Your task to perform on an android device: Clear all items from cart on walmart.com. Add dell xps to the cart on walmart.com Image 0: 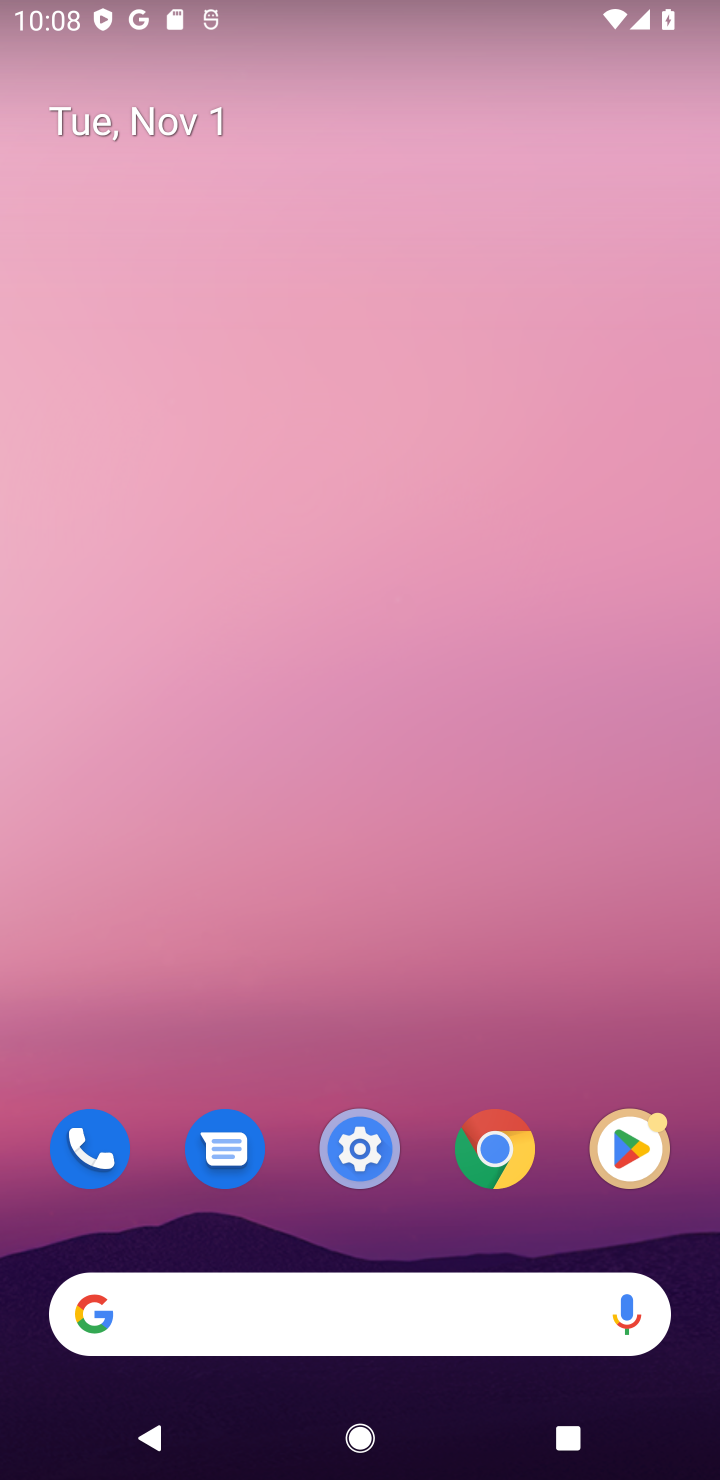
Step 0: press home button
Your task to perform on an android device: Clear all items from cart on walmart.com. Add dell xps to the cart on walmart.com Image 1: 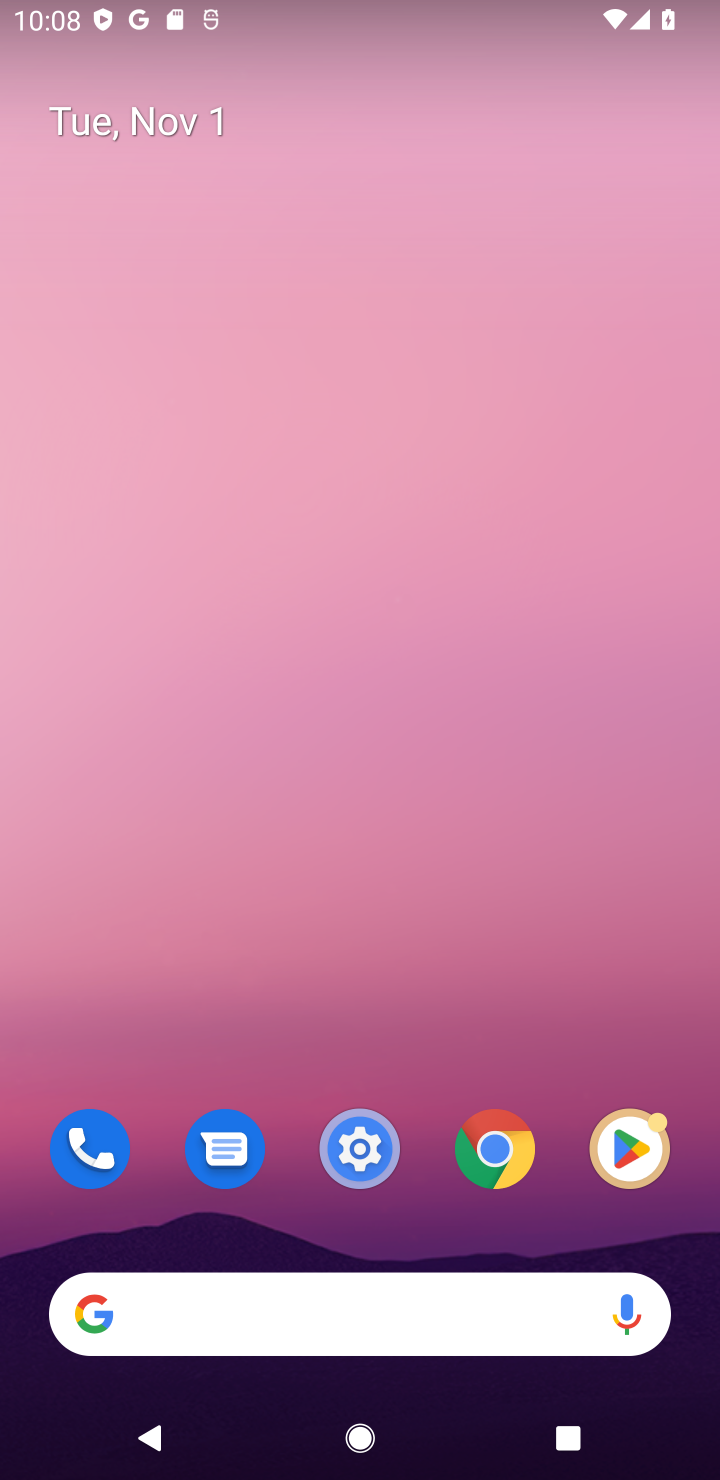
Step 1: click (150, 1318)
Your task to perform on an android device: Clear all items from cart on walmart.com. Add dell xps to the cart on walmart.com Image 2: 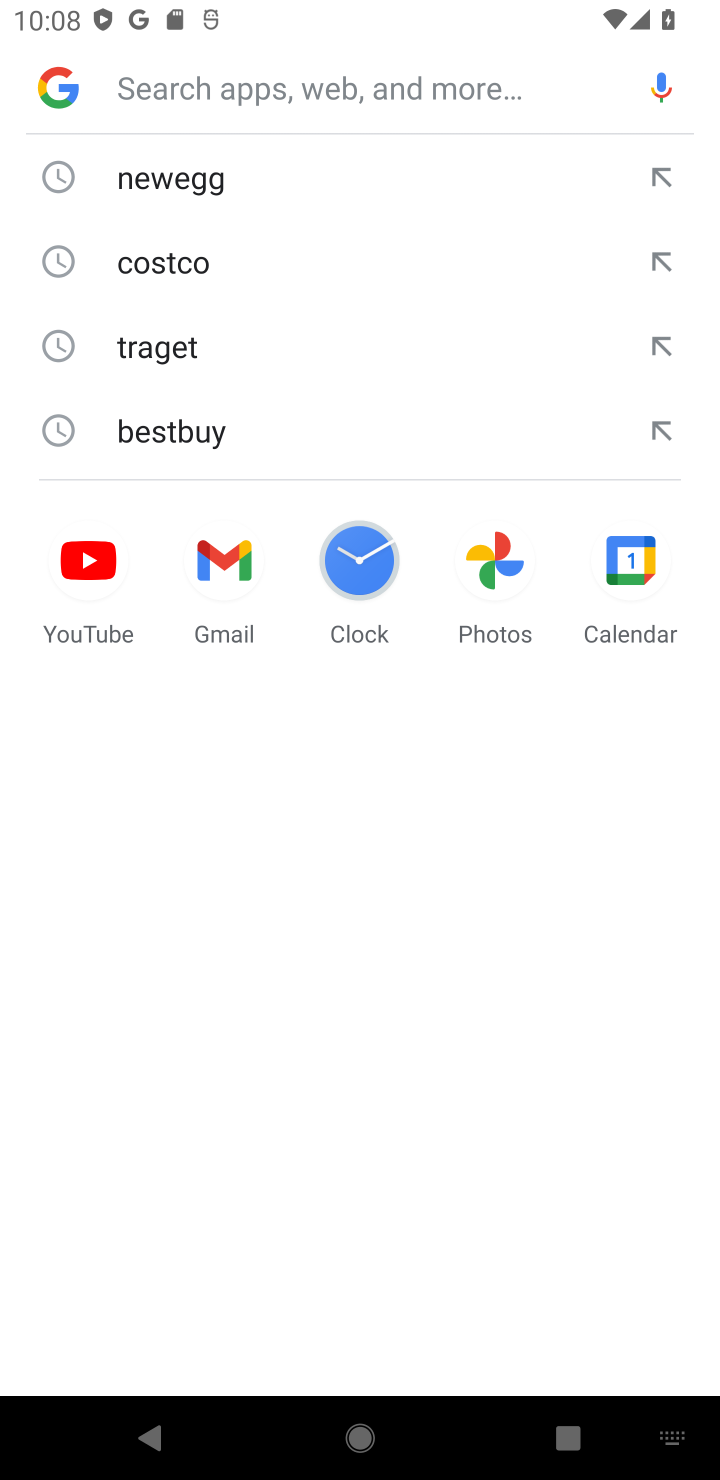
Step 2: type " walmart.com"
Your task to perform on an android device: Clear all items from cart on walmart.com. Add dell xps to the cart on walmart.com Image 3: 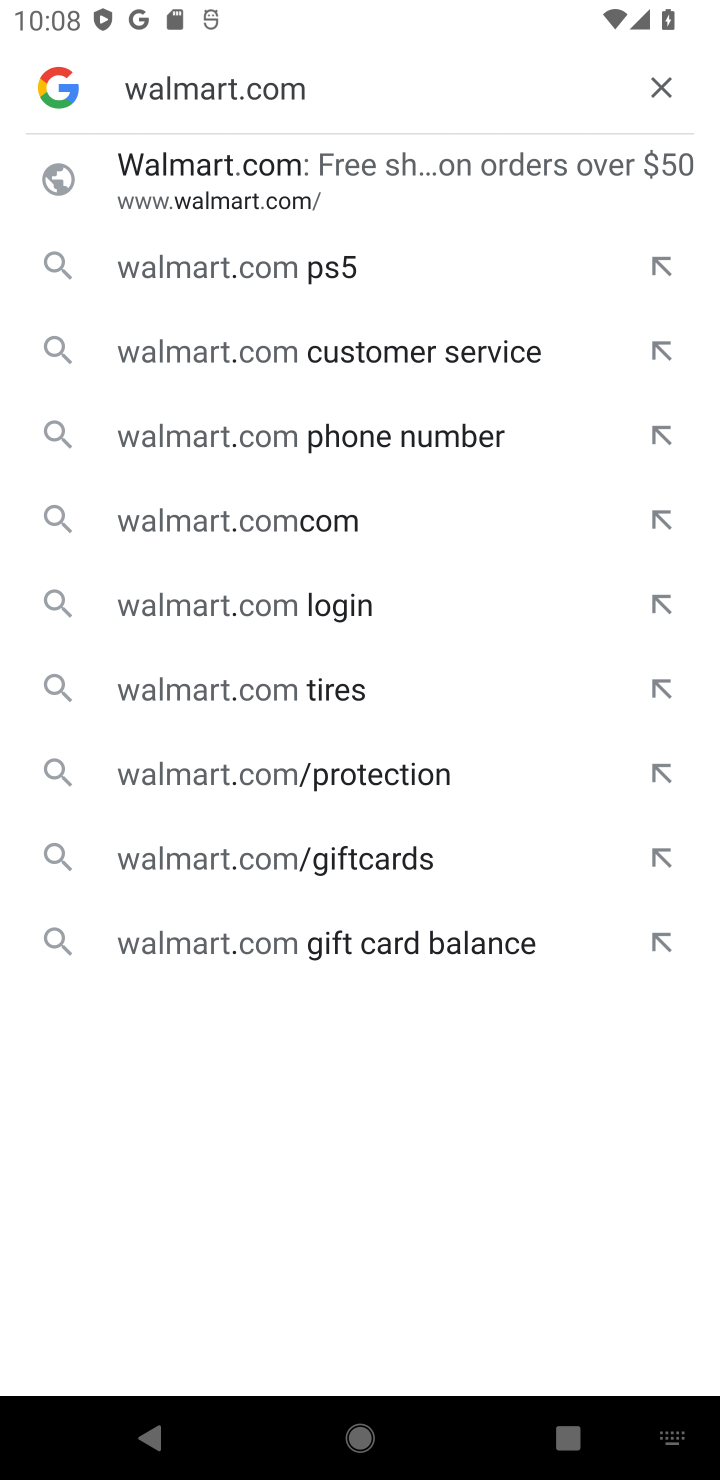
Step 3: press enter
Your task to perform on an android device: Clear all items from cart on walmart.com. Add dell xps to the cart on walmart.com Image 4: 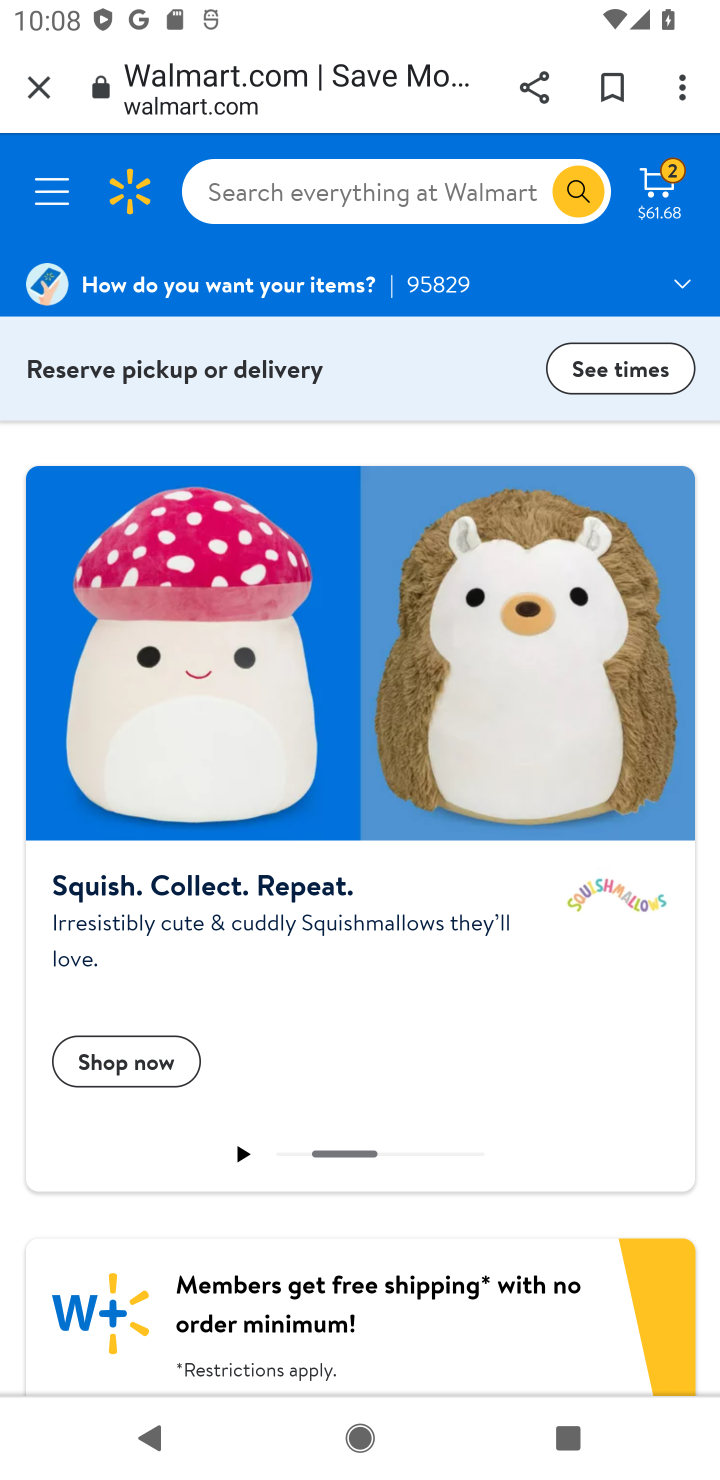
Step 4: click (660, 185)
Your task to perform on an android device: Clear all items from cart on walmart.com. Add dell xps to the cart on walmart.com Image 5: 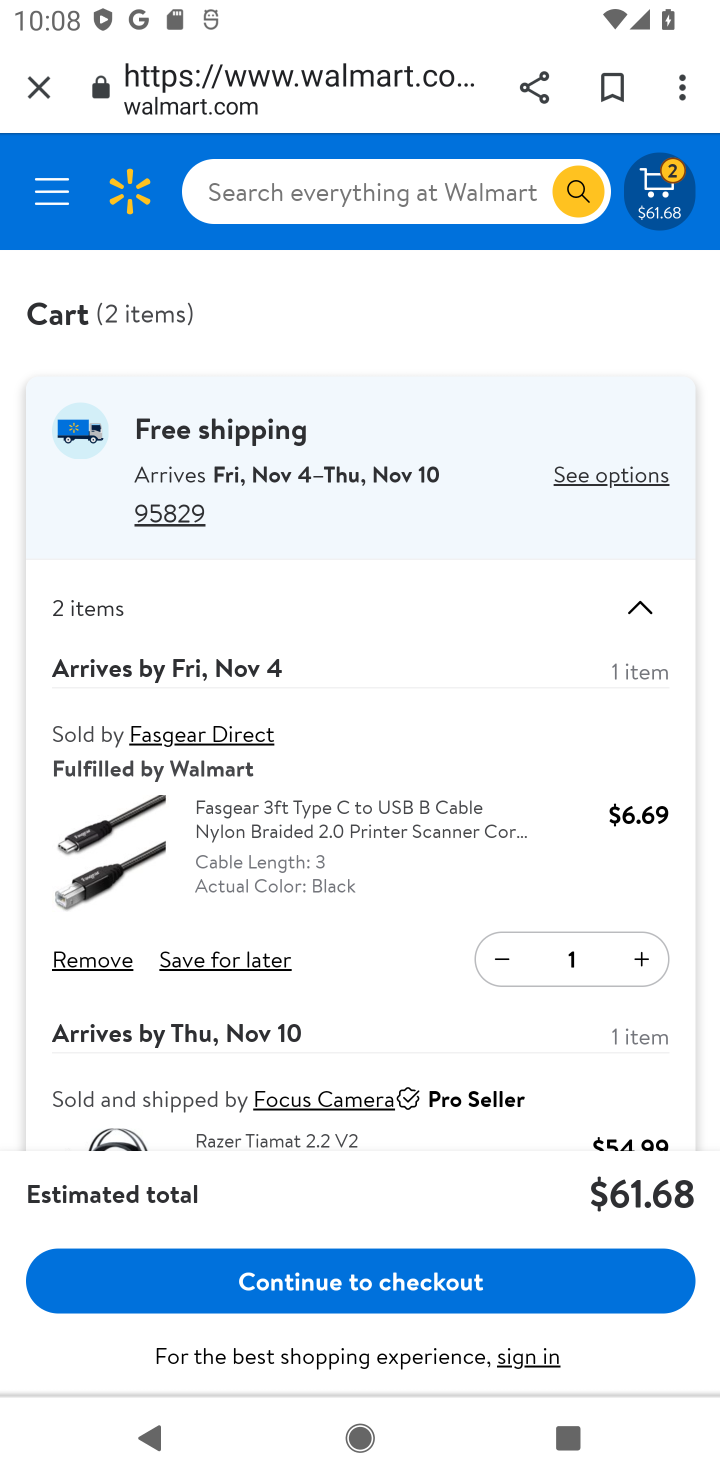
Step 5: click (86, 963)
Your task to perform on an android device: Clear all items from cart on walmart.com. Add dell xps to the cart on walmart.com Image 6: 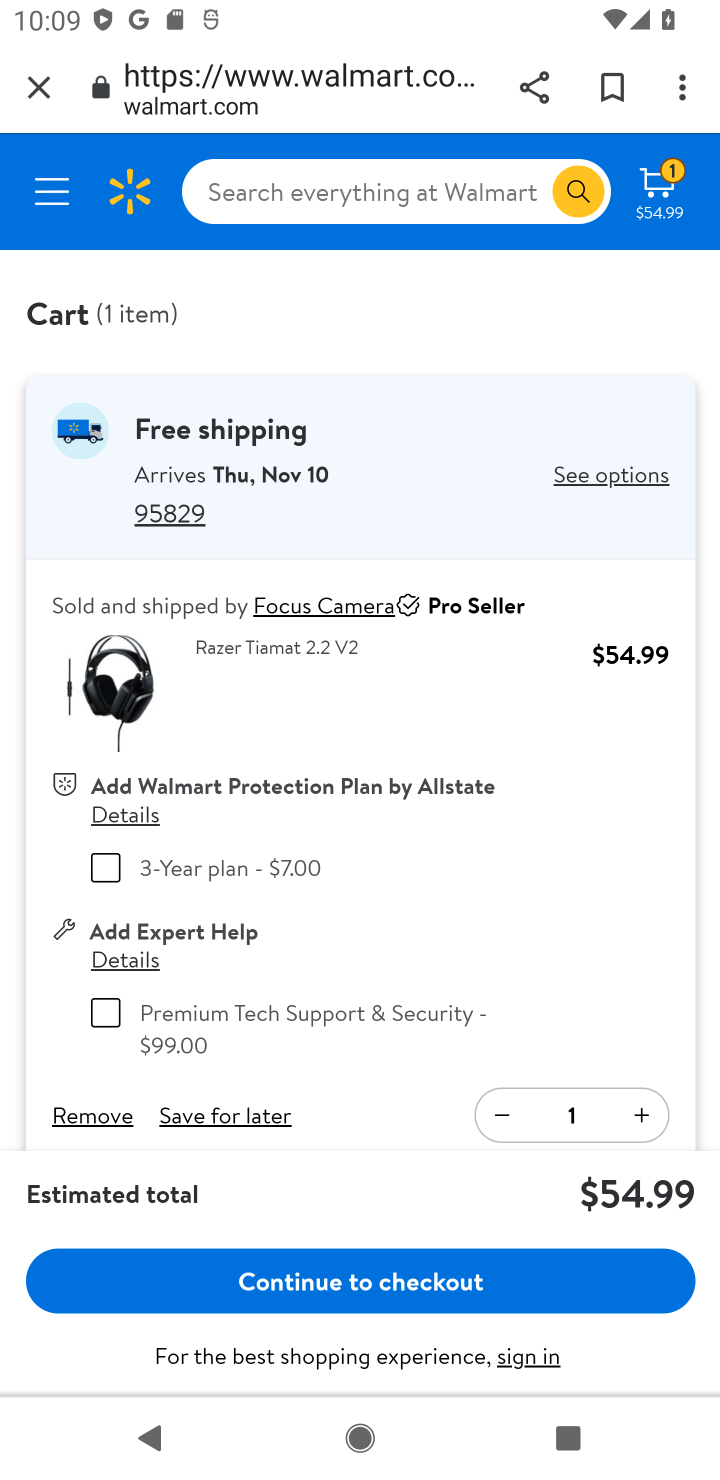
Step 6: click (60, 1117)
Your task to perform on an android device: Clear all items from cart on walmart.com. Add dell xps to the cart on walmart.com Image 7: 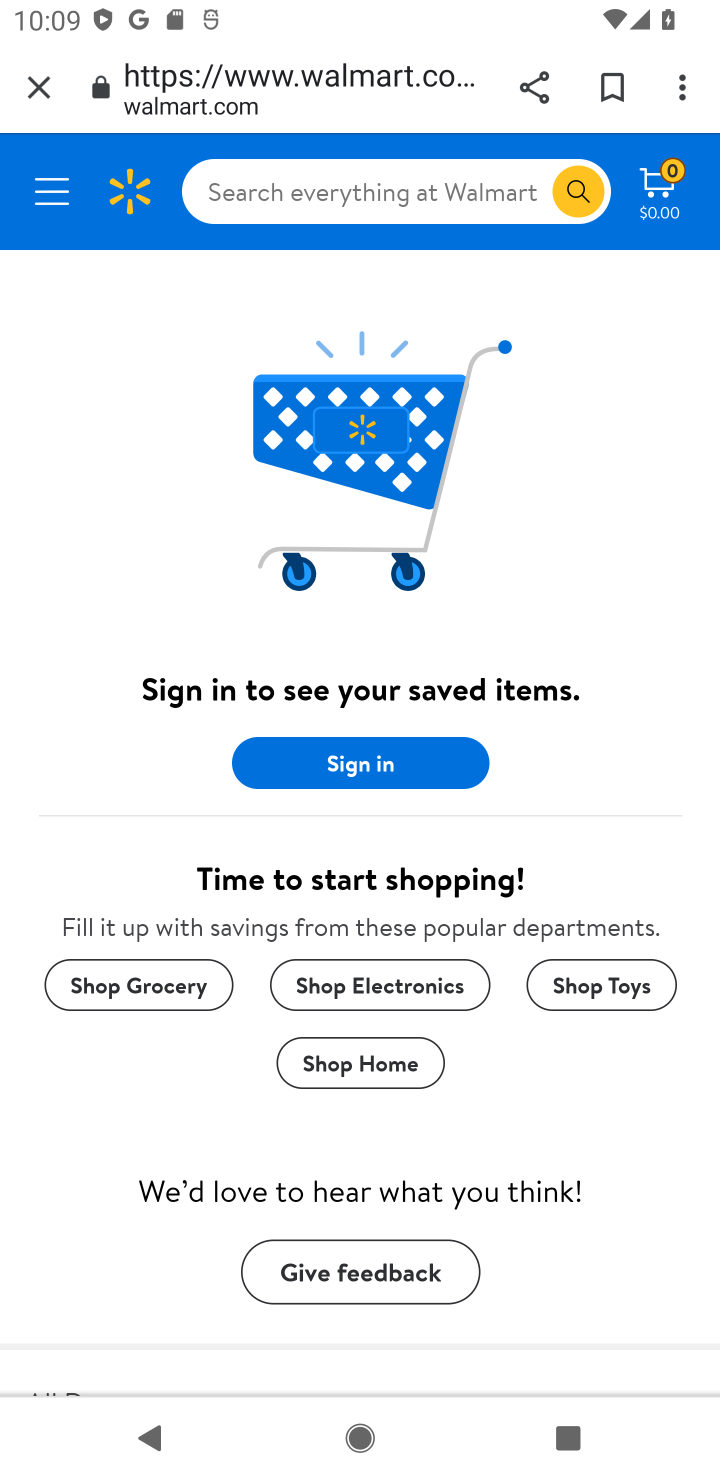
Step 7: click (258, 187)
Your task to perform on an android device: Clear all items from cart on walmart.com. Add dell xps to the cart on walmart.com Image 8: 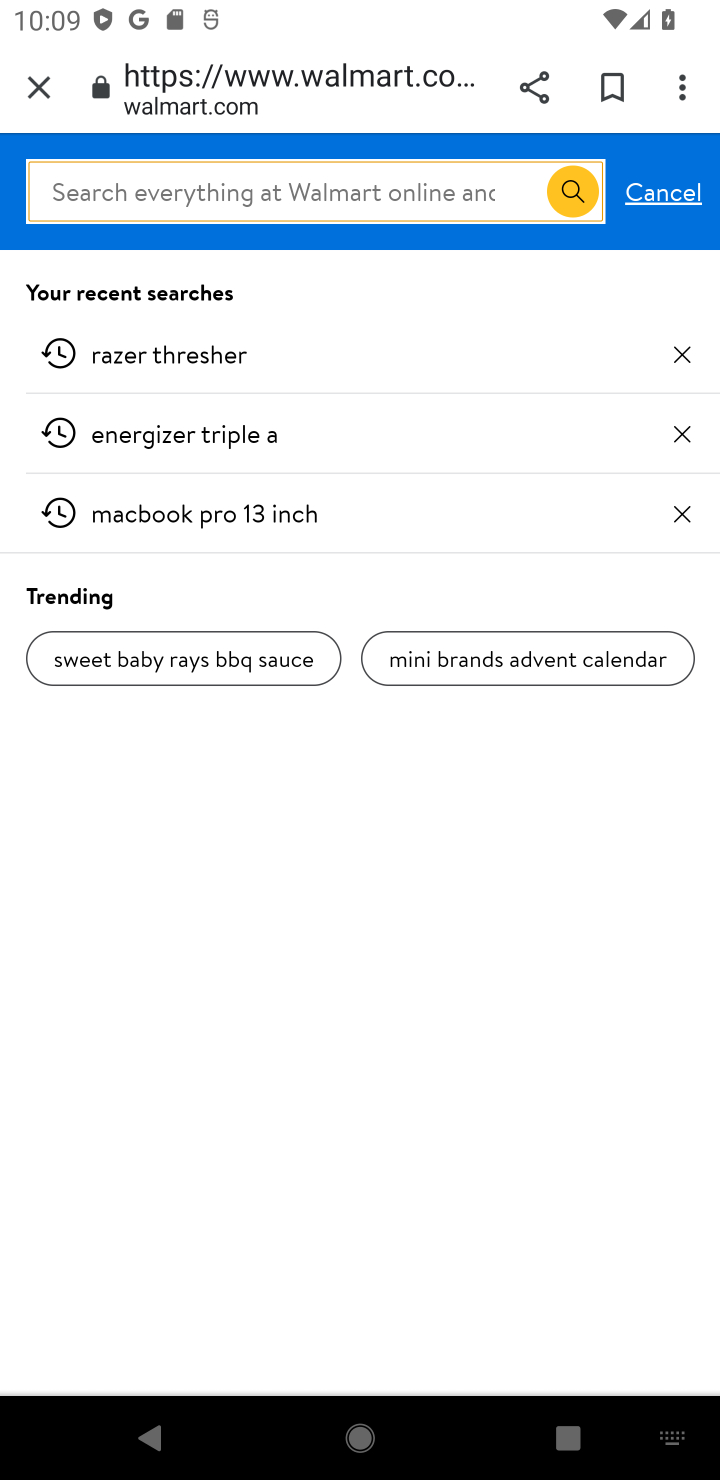
Step 8: type "dell xps"
Your task to perform on an android device: Clear all items from cart on walmart.com. Add dell xps to the cart on walmart.com Image 9: 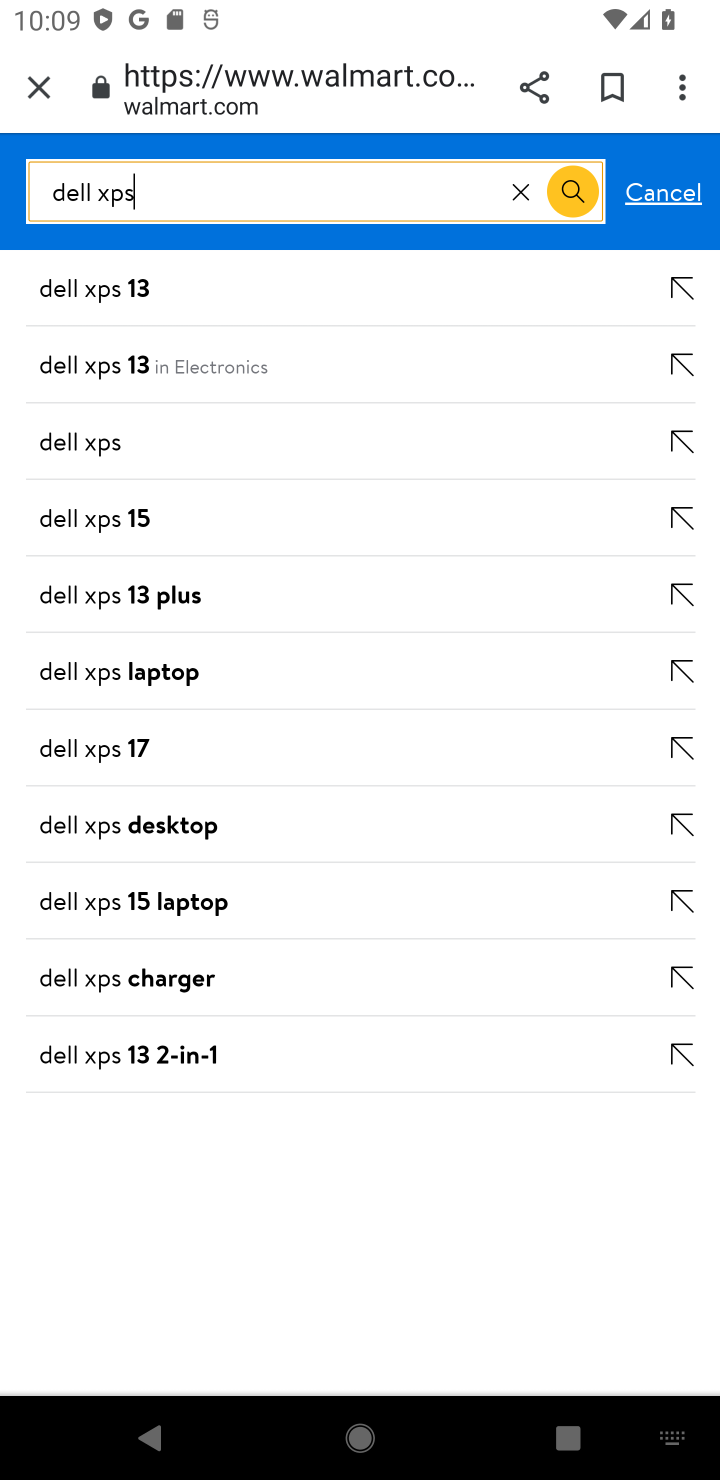
Step 9: press enter
Your task to perform on an android device: Clear all items from cart on walmart.com. Add dell xps to the cart on walmart.com Image 10: 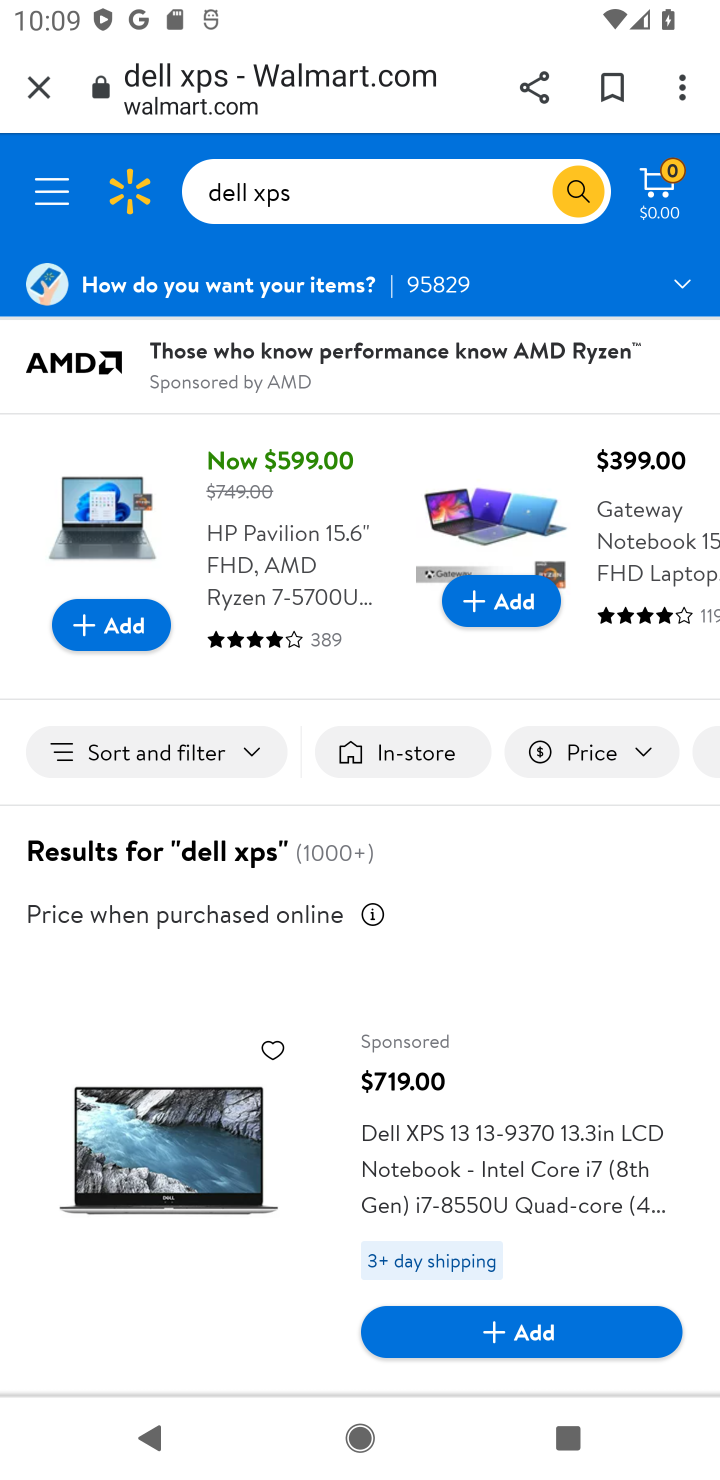
Step 10: click (566, 1336)
Your task to perform on an android device: Clear all items from cart on walmart.com. Add dell xps to the cart on walmart.com Image 11: 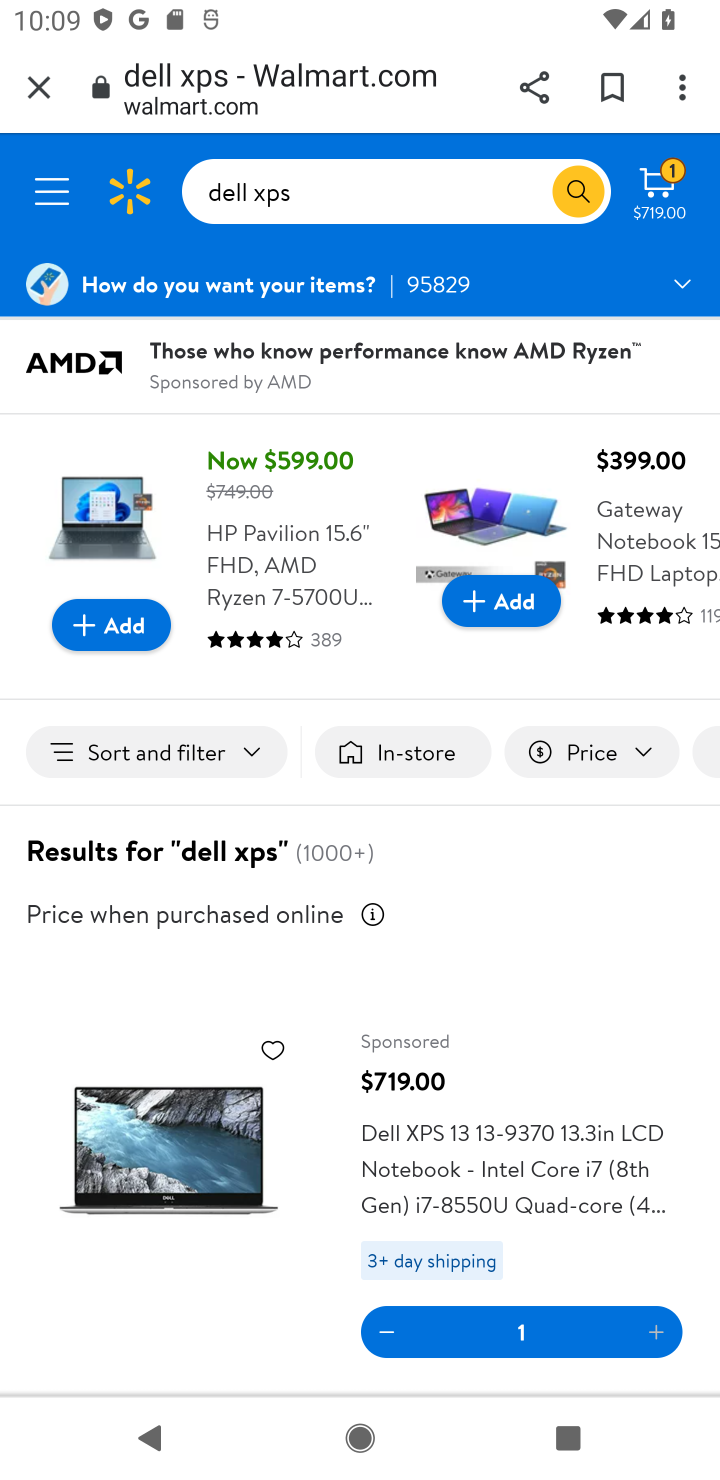
Step 11: task complete